Your task to perform on an android device: Show me the alarms in the clock app Image 0: 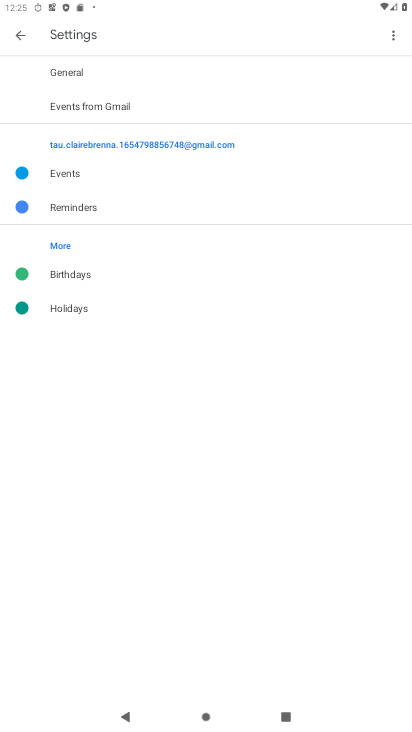
Step 0: press home button
Your task to perform on an android device: Show me the alarms in the clock app Image 1: 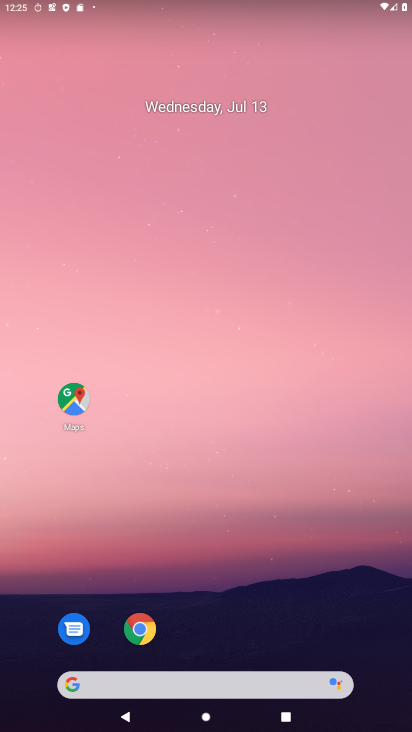
Step 1: drag from (211, 631) to (261, 81)
Your task to perform on an android device: Show me the alarms in the clock app Image 2: 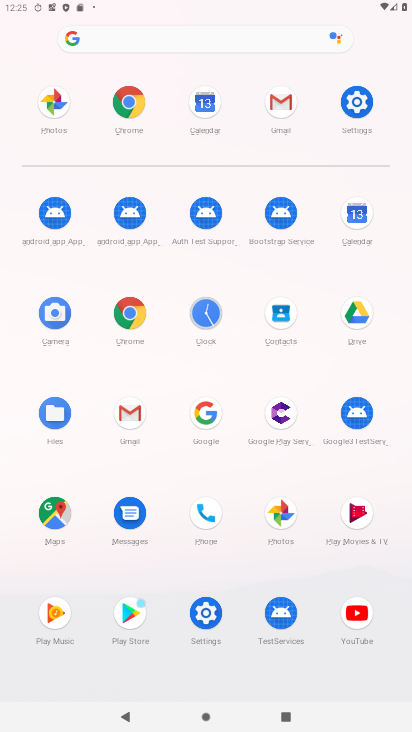
Step 2: click (198, 323)
Your task to perform on an android device: Show me the alarms in the clock app Image 3: 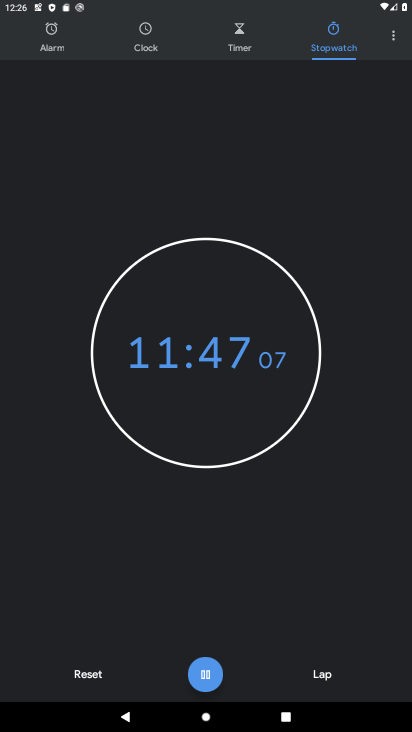
Step 3: click (59, 38)
Your task to perform on an android device: Show me the alarms in the clock app Image 4: 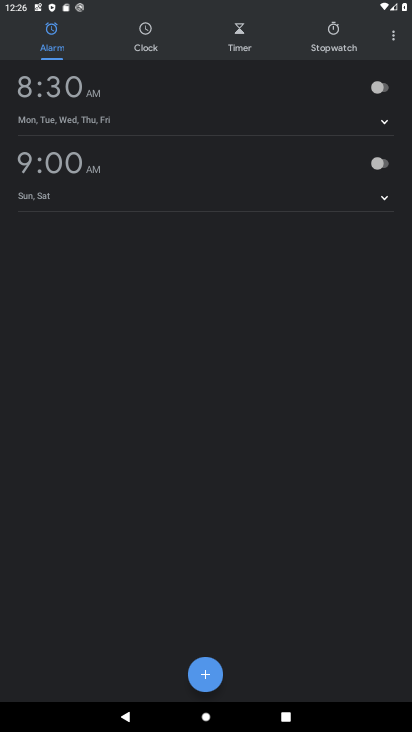
Step 4: task complete